Your task to perform on an android device: Open eBay Image 0: 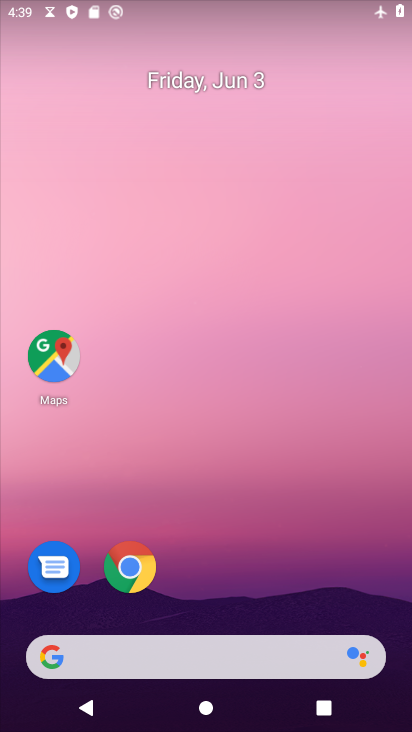
Step 0: click (126, 563)
Your task to perform on an android device: Open eBay Image 1: 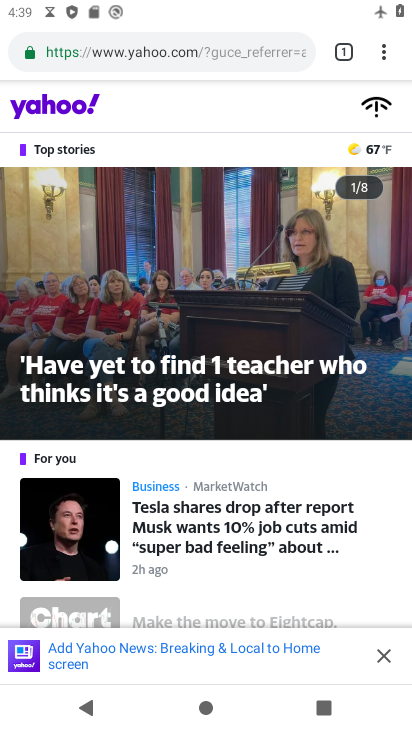
Step 1: click (249, 47)
Your task to perform on an android device: Open eBay Image 2: 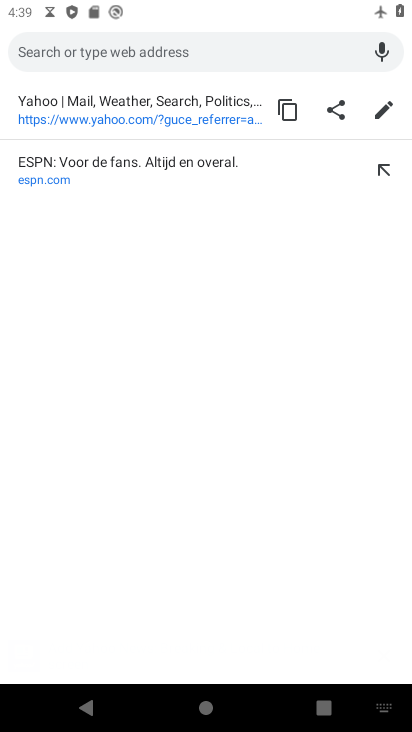
Step 2: type "eBay"
Your task to perform on an android device: Open eBay Image 3: 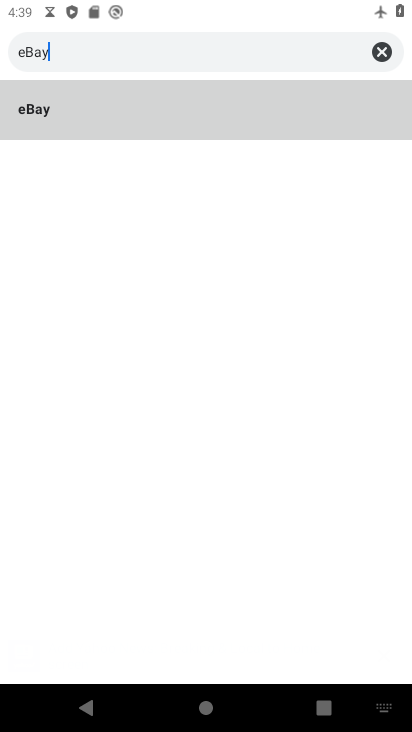
Step 3: type ""
Your task to perform on an android device: Open eBay Image 4: 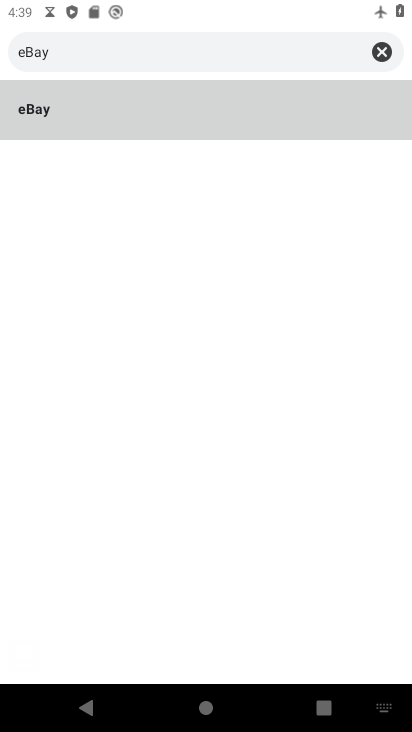
Step 4: click (73, 117)
Your task to perform on an android device: Open eBay Image 5: 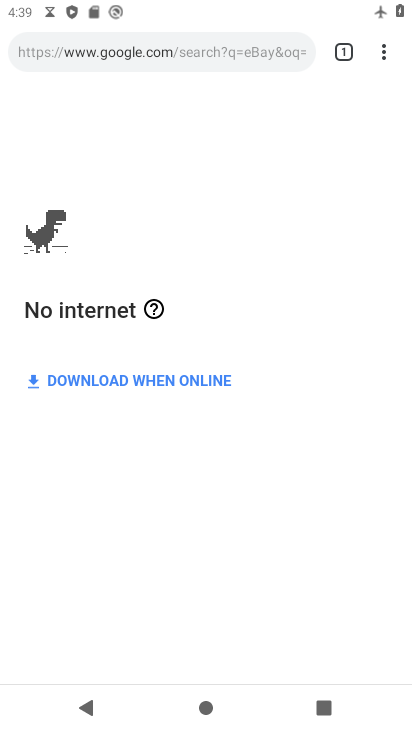
Step 5: task complete